Your task to perform on an android device: Show me popular games on the Play Store Image 0: 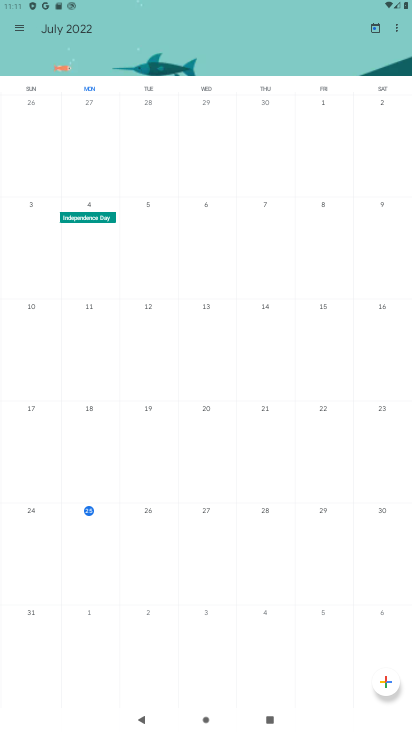
Step 0: press home button
Your task to perform on an android device: Show me popular games on the Play Store Image 1: 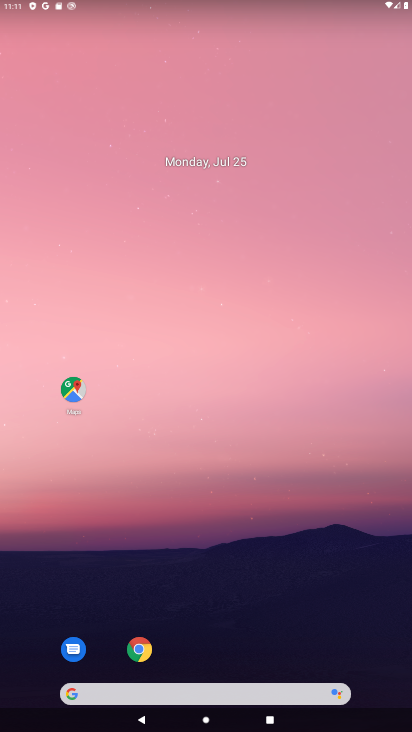
Step 1: drag from (192, 674) to (171, 281)
Your task to perform on an android device: Show me popular games on the Play Store Image 2: 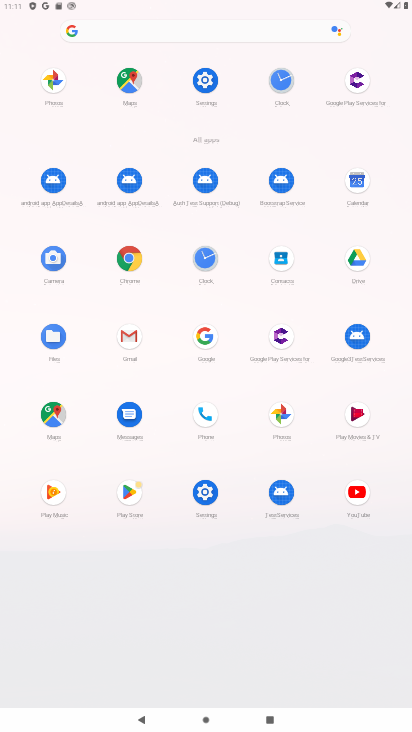
Step 2: click (139, 482)
Your task to perform on an android device: Show me popular games on the Play Store Image 3: 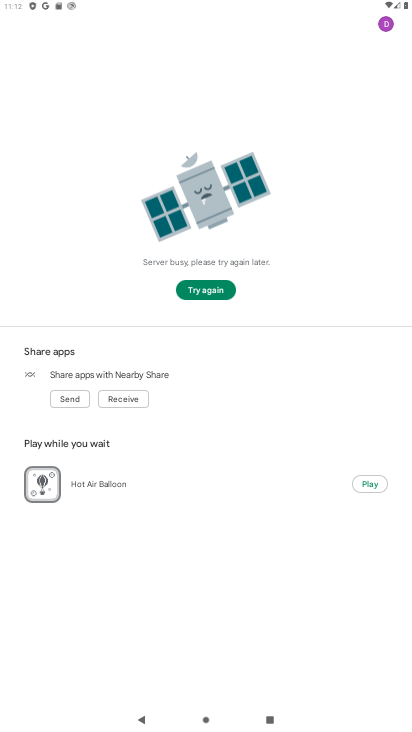
Step 3: click (186, 293)
Your task to perform on an android device: Show me popular games on the Play Store Image 4: 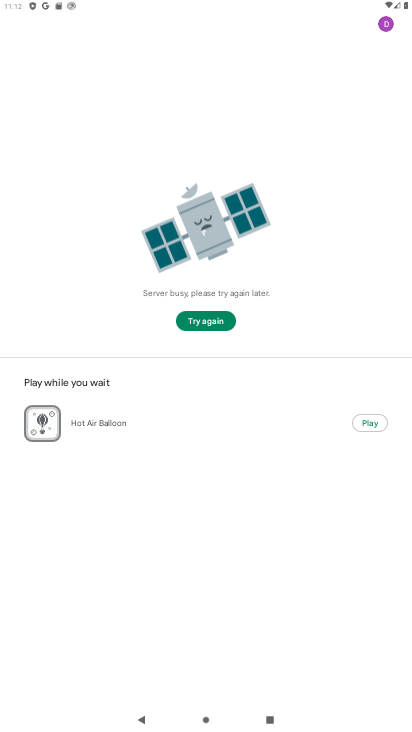
Step 4: task complete